Your task to perform on an android device: What's on my calendar today? Image 0: 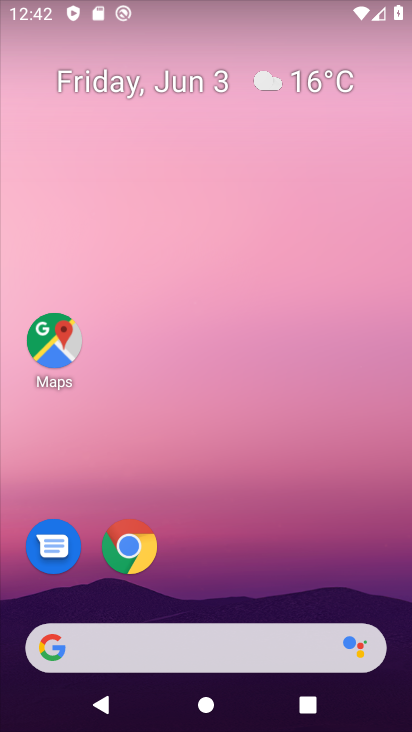
Step 0: drag from (193, 606) to (264, 92)
Your task to perform on an android device: What's on my calendar today? Image 1: 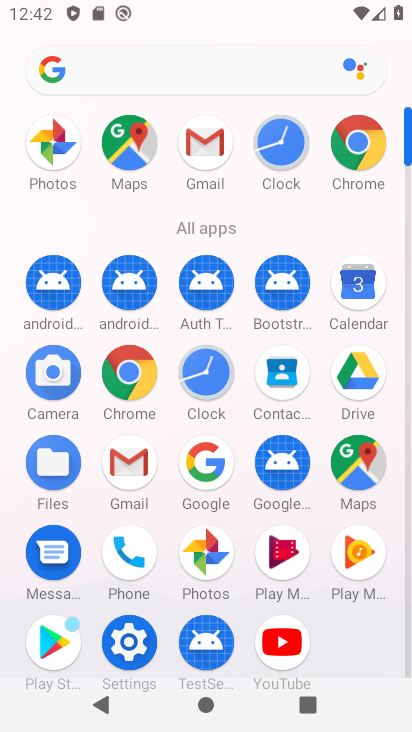
Step 1: click (357, 280)
Your task to perform on an android device: What's on my calendar today? Image 2: 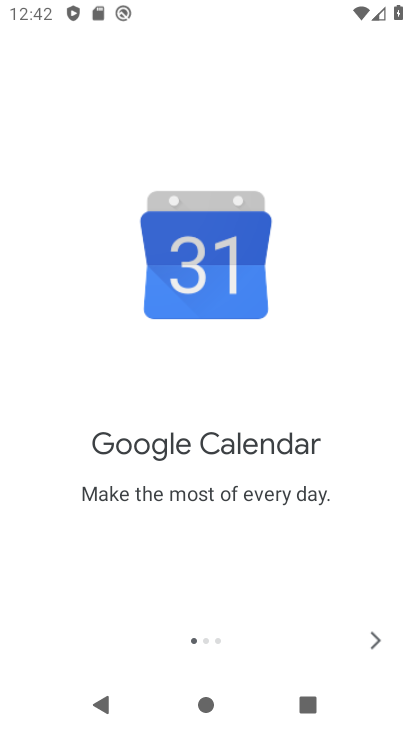
Step 2: click (367, 637)
Your task to perform on an android device: What's on my calendar today? Image 3: 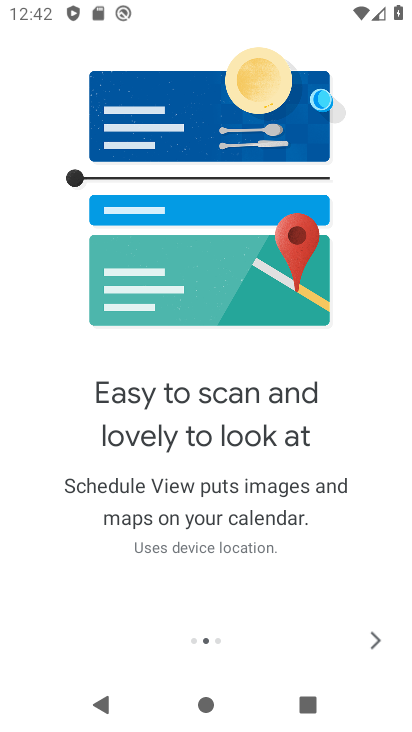
Step 3: click (362, 627)
Your task to perform on an android device: What's on my calendar today? Image 4: 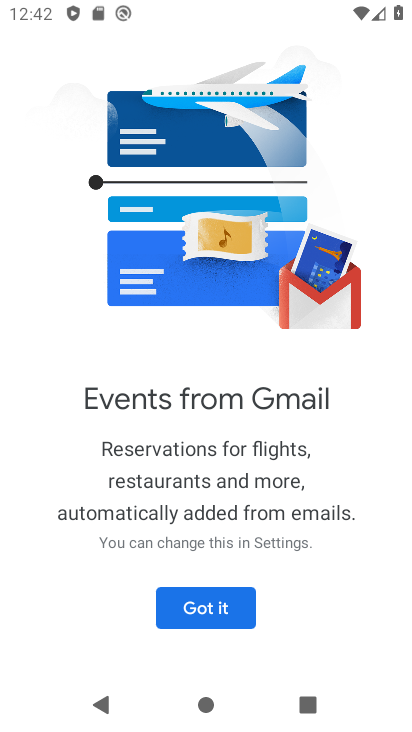
Step 4: click (196, 617)
Your task to perform on an android device: What's on my calendar today? Image 5: 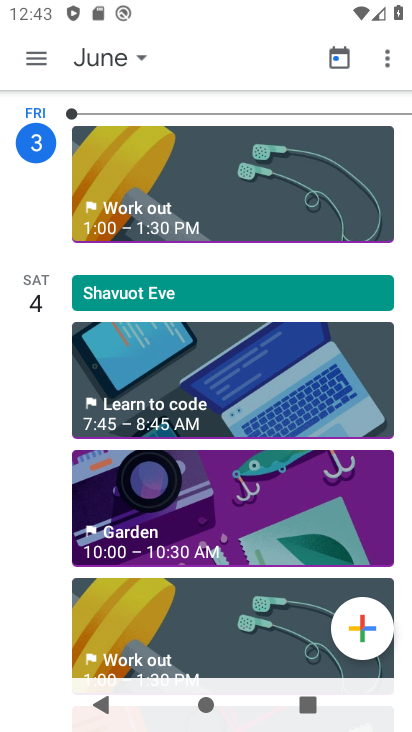
Step 5: click (44, 143)
Your task to perform on an android device: What's on my calendar today? Image 6: 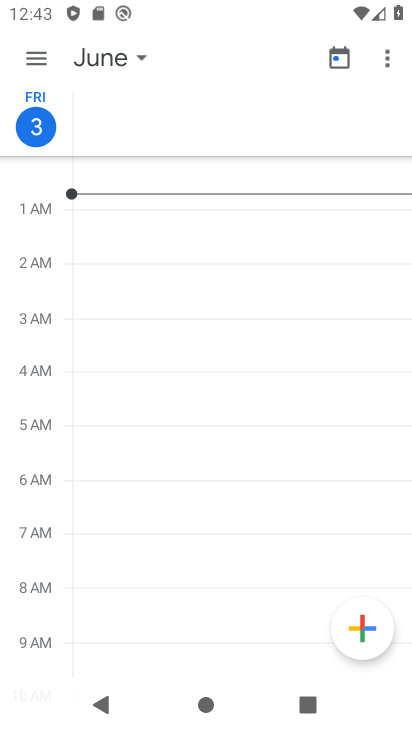
Step 6: task complete